Your task to perform on an android device: Add "lenovo thinkpad" to the cart on ebay, then select checkout. Image 0: 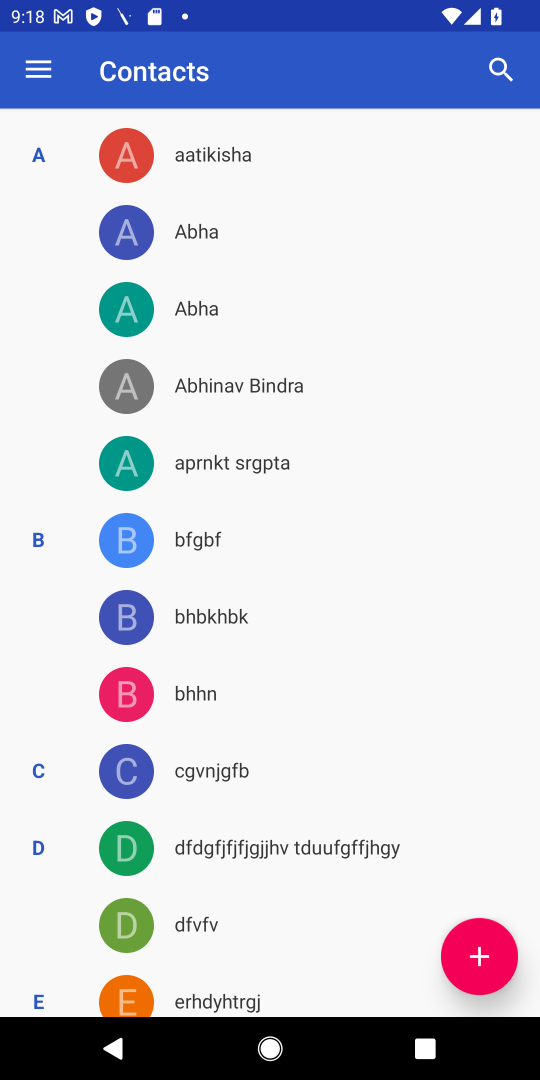
Step 0: press home button
Your task to perform on an android device: Add "lenovo thinkpad" to the cart on ebay, then select checkout. Image 1: 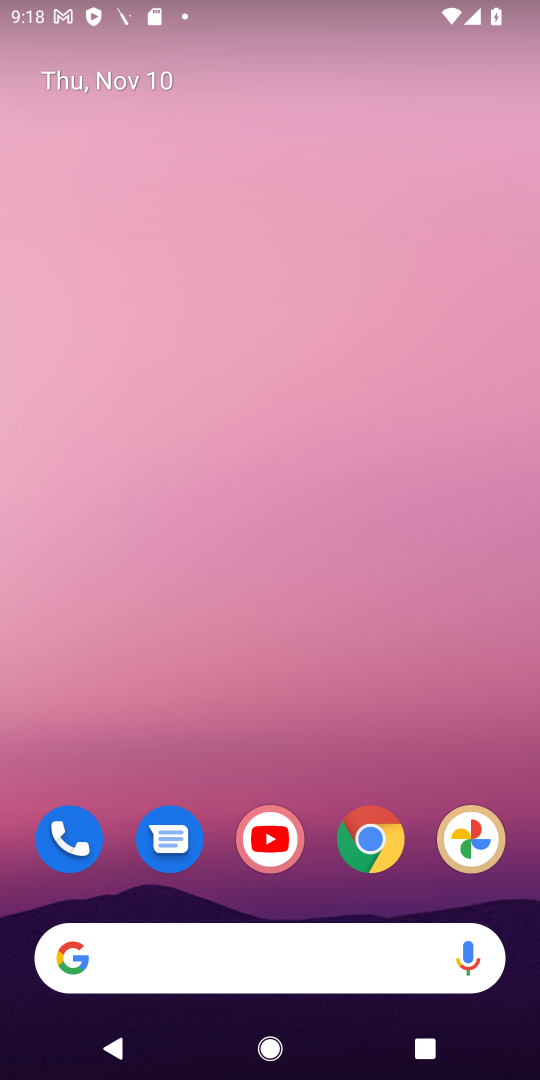
Step 1: click (372, 839)
Your task to perform on an android device: Add "lenovo thinkpad" to the cart on ebay, then select checkout. Image 2: 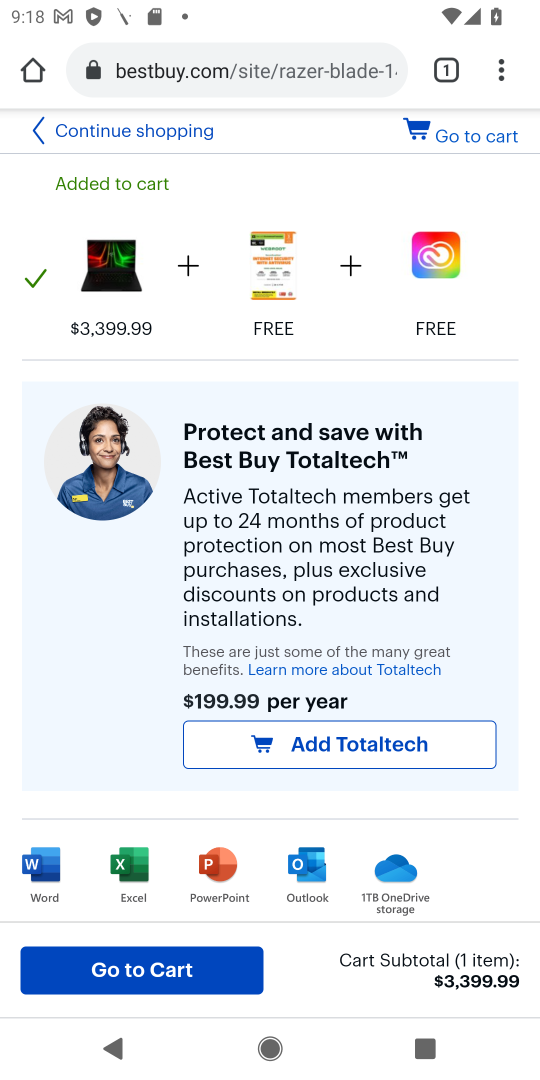
Step 2: click (286, 56)
Your task to perform on an android device: Add "lenovo thinkpad" to the cart on ebay, then select checkout. Image 3: 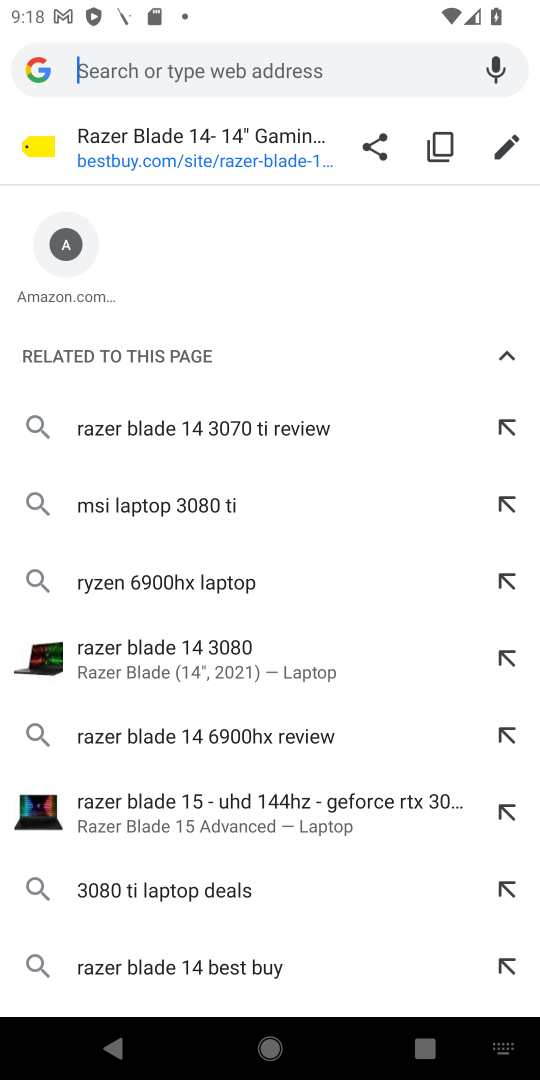
Step 3: type "ebay"
Your task to perform on an android device: Add "lenovo thinkpad" to the cart on ebay, then select checkout. Image 4: 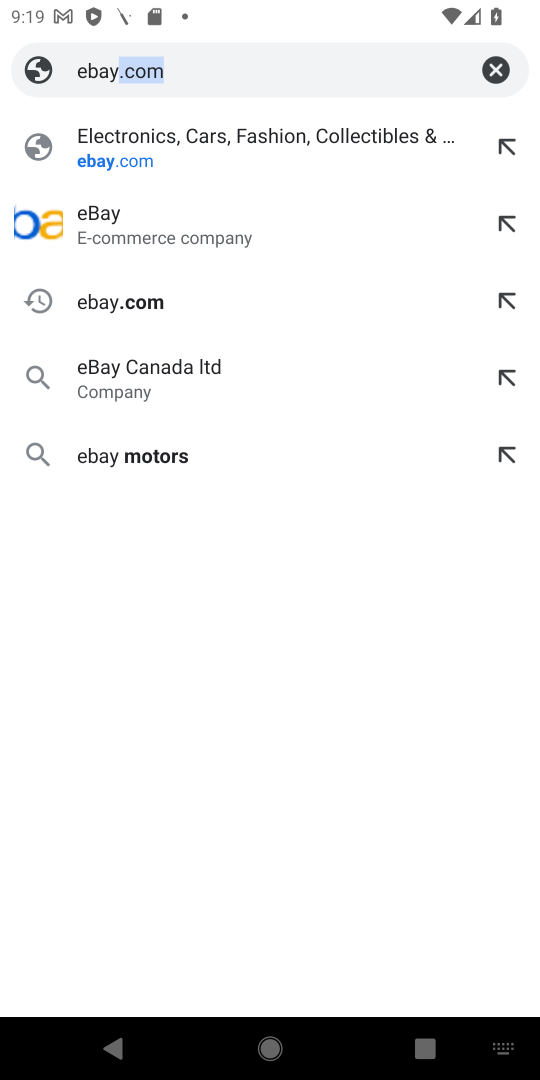
Step 4: click (310, 70)
Your task to perform on an android device: Add "lenovo thinkpad" to the cart on ebay, then select checkout. Image 5: 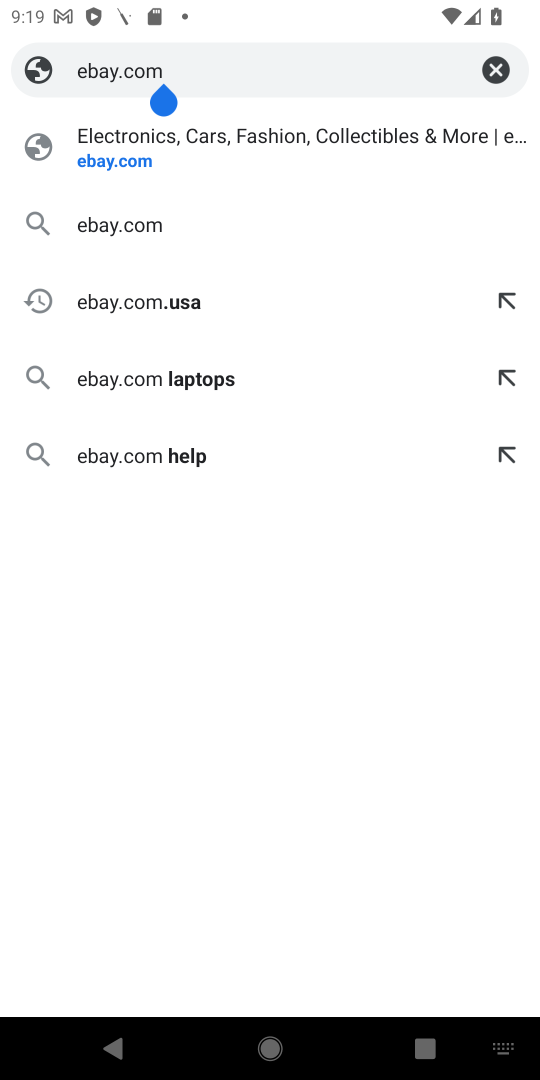
Step 5: click (145, 234)
Your task to perform on an android device: Add "lenovo thinkpad" to the cart on ebay, then select checkout. Image 6: 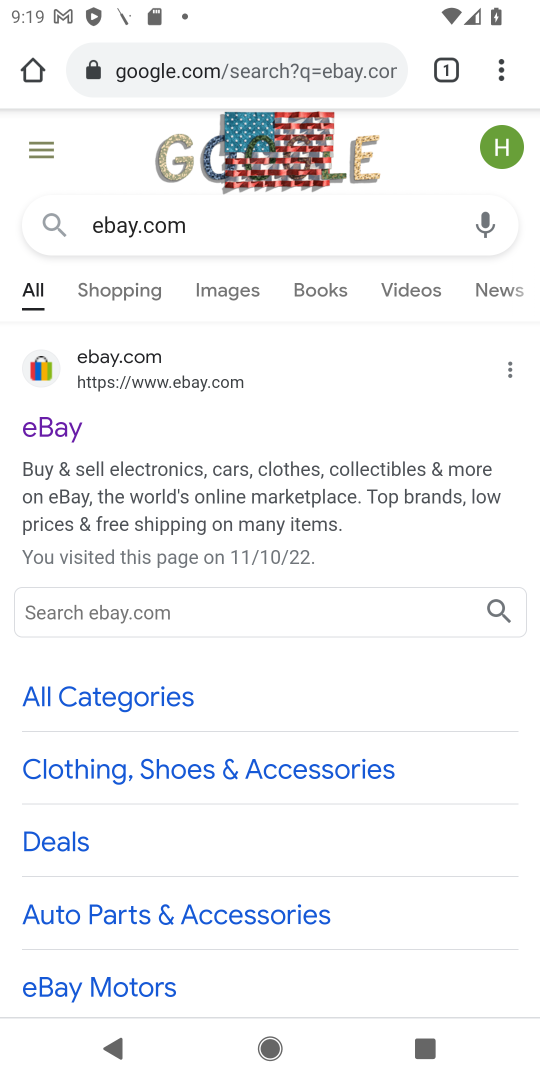
Step 6: click (172, 386)
Your task to perform on an android device: Add "lenovo thinkpad" to the cart on ebay, then select checkout. Image 7: 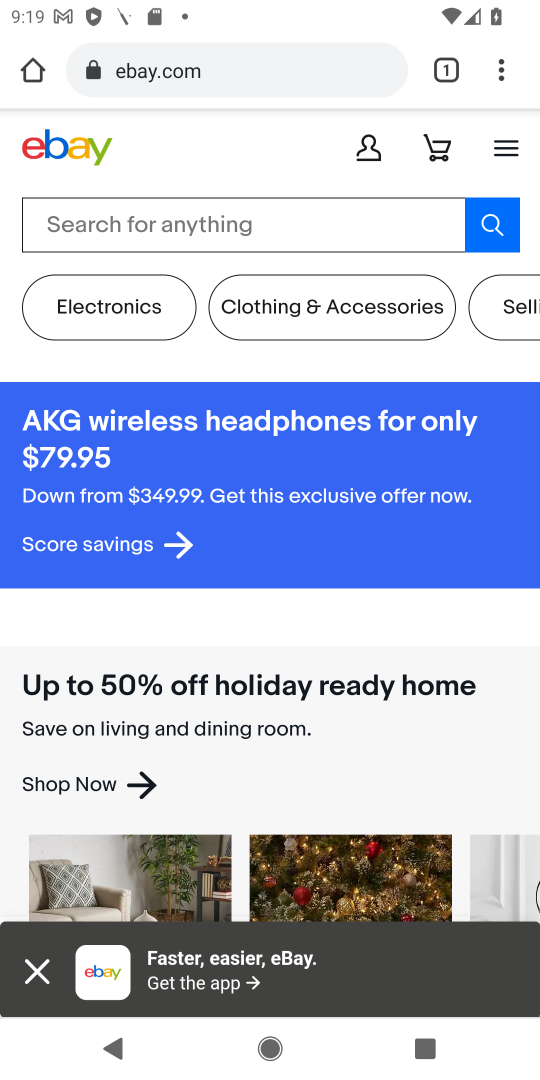
Step 7: click (175, 222)
Your task to perform on an android device: Add "lenovo thinkpad" to the cart on ebay, then select checkout. Image 8: 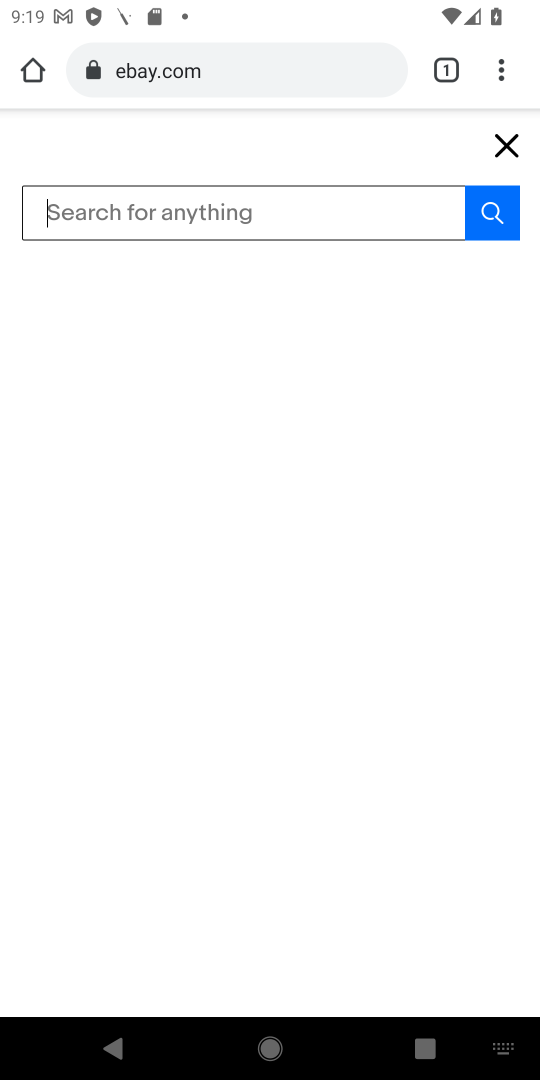
Step 8: type "lenovo thinkpad"
Your task to perform on an android device: Add "lenovo thinkpad" to the cart on ebay, then select checkout. Image 9: 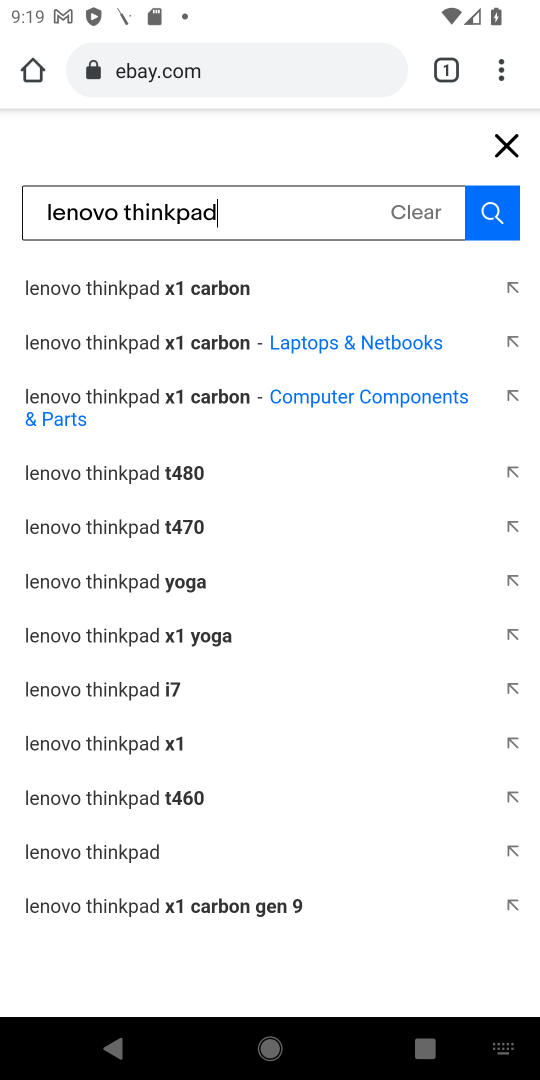
Step 9: click (125, 852)
Your task to perform on an android device: Add "lenovo thinkpad" to the cart on ebay, then select checkout. Image 10: 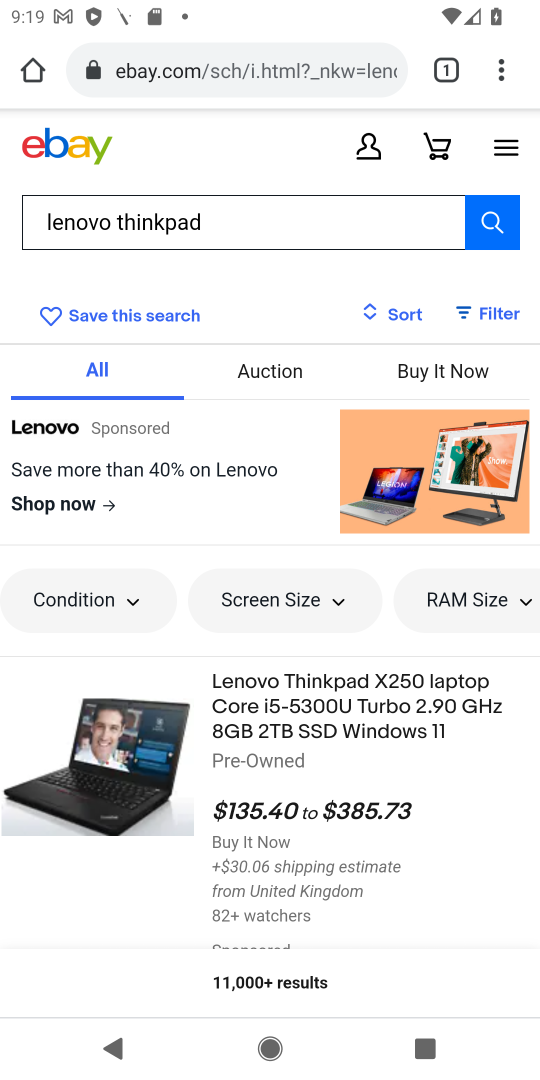
Step 10: click (125, 758)
Your task to perform on an android device: Add "lenovo thinkpad" to the cart on ebay, then select checkout. Image 11: 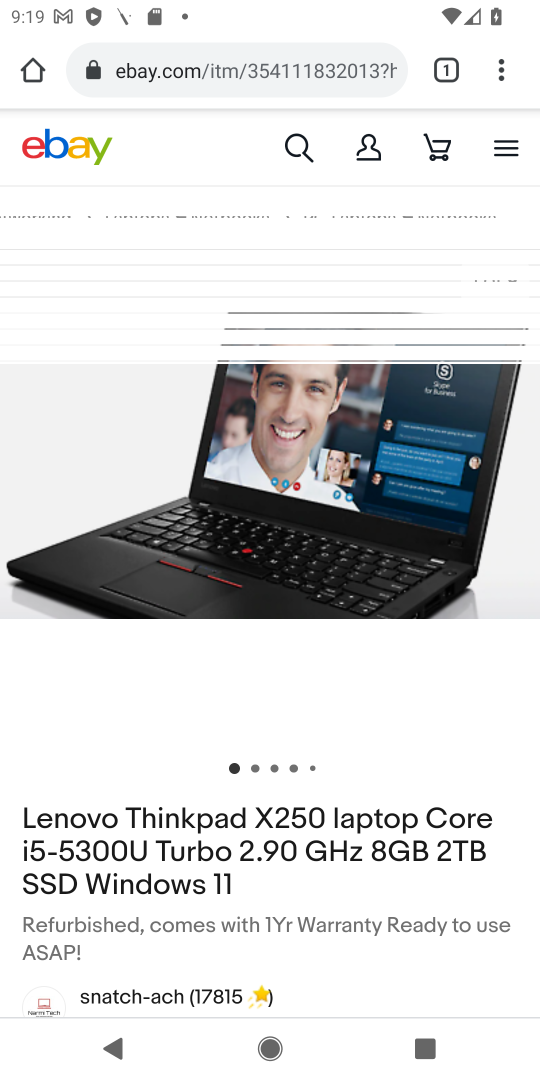
Step 11: drag from (445, 860) to (381, 196)
Your task to perform on an android device: Add "lenovo thinkpad" to the cart on ebay, then select checkout. Image 12: 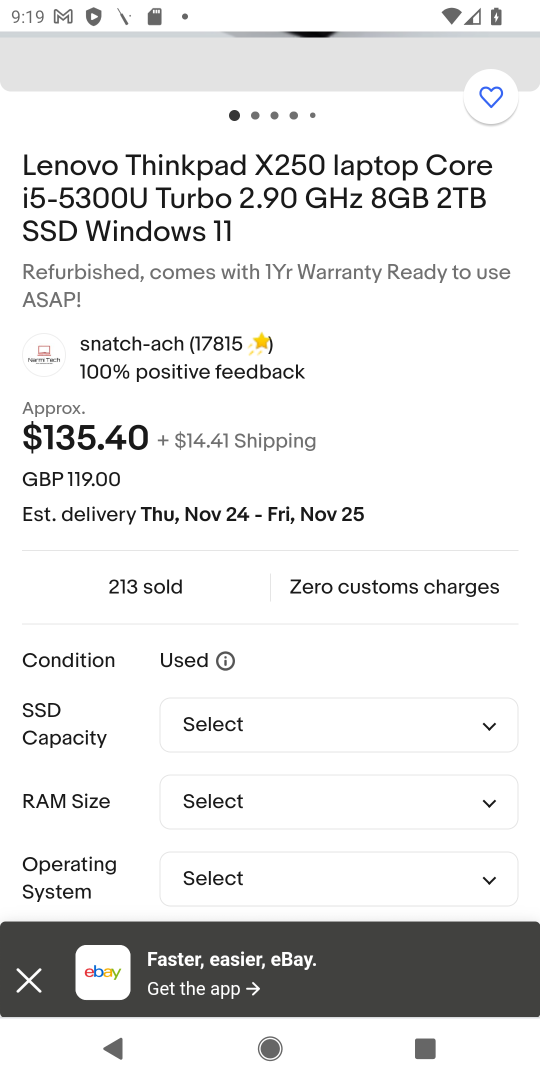
Step 12: drag from (424, 779) to (416, 232)
Your task to perform on an android device: Add "lenovo thinkpad" to the cart on ebay, then select checkout. Image 13: 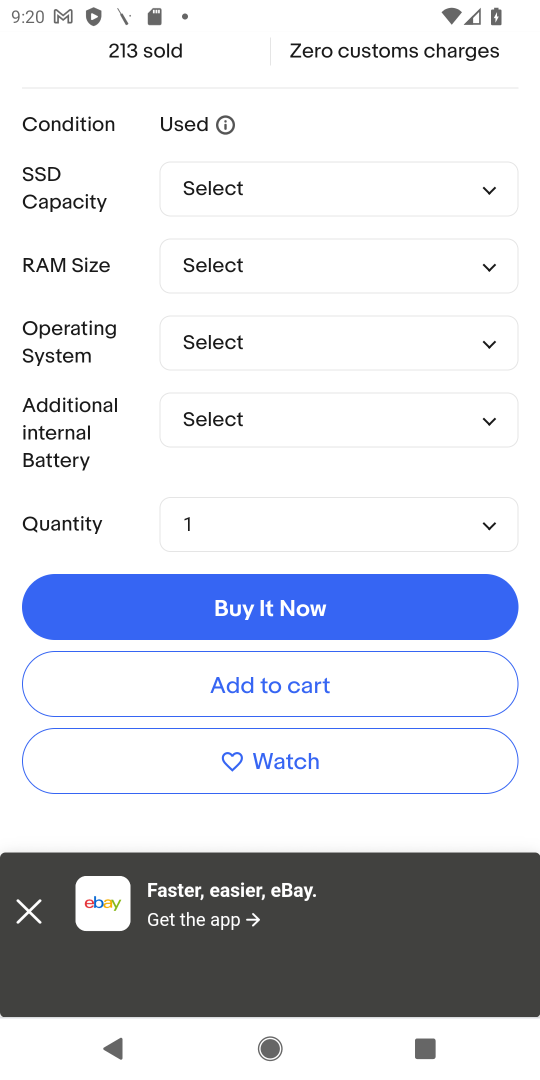
Step 13: click (296, 692)
Your task to perform on an android device: Add "lenovo thinkpad" to the cart on ebay, then select checkout. Image 14: 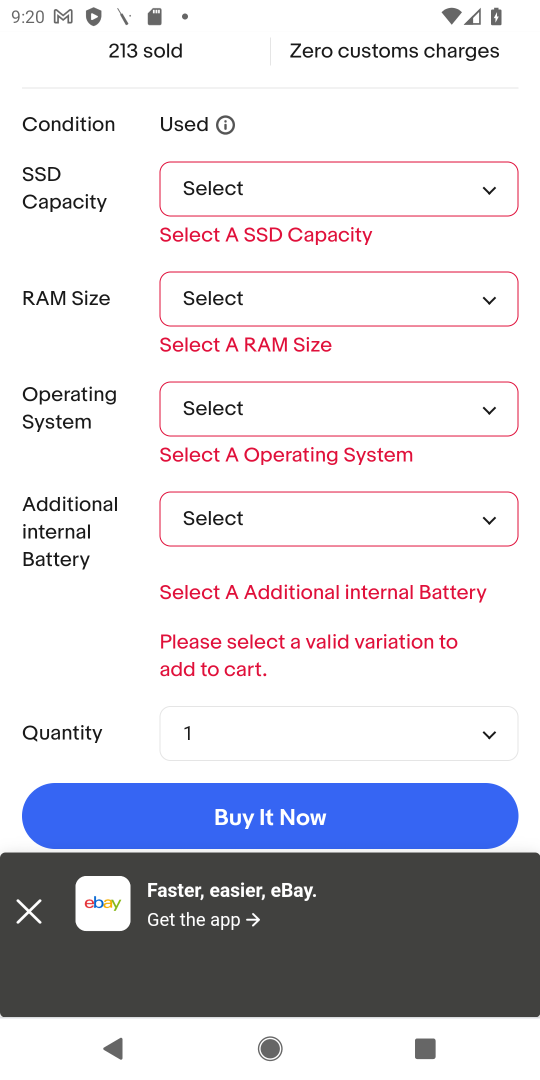
Step 14: press back button
Your task to perform on an android device: Add "lenovo thinkpad" to the cart on ebay, then select checkout. Image 15: 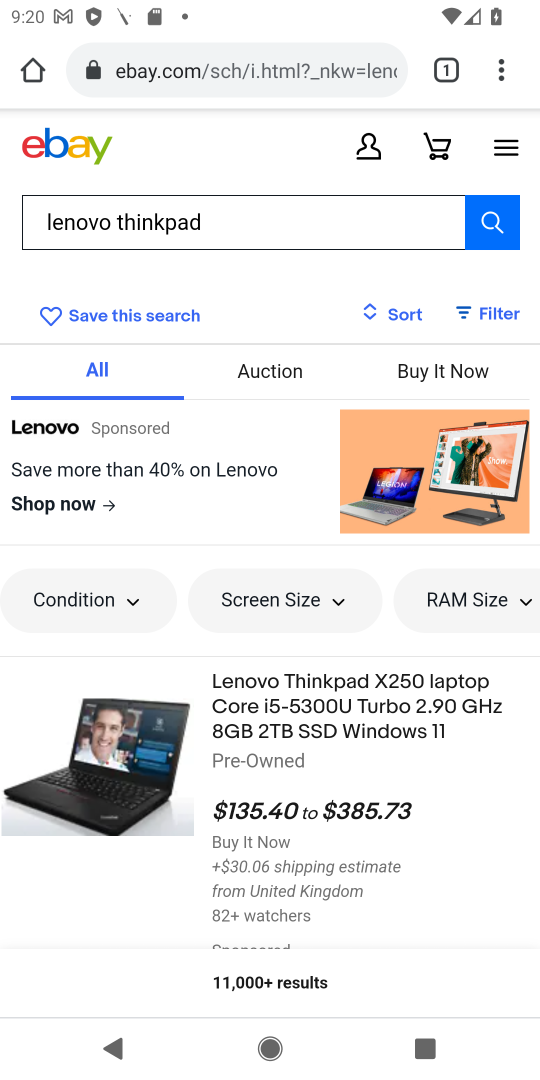
Step 15: drag from (435, 824) to (456, 328)
Your task to perform on an android device: Add "lenovo thinkpad" to the cart on ebay, then select checkout. Image 16: 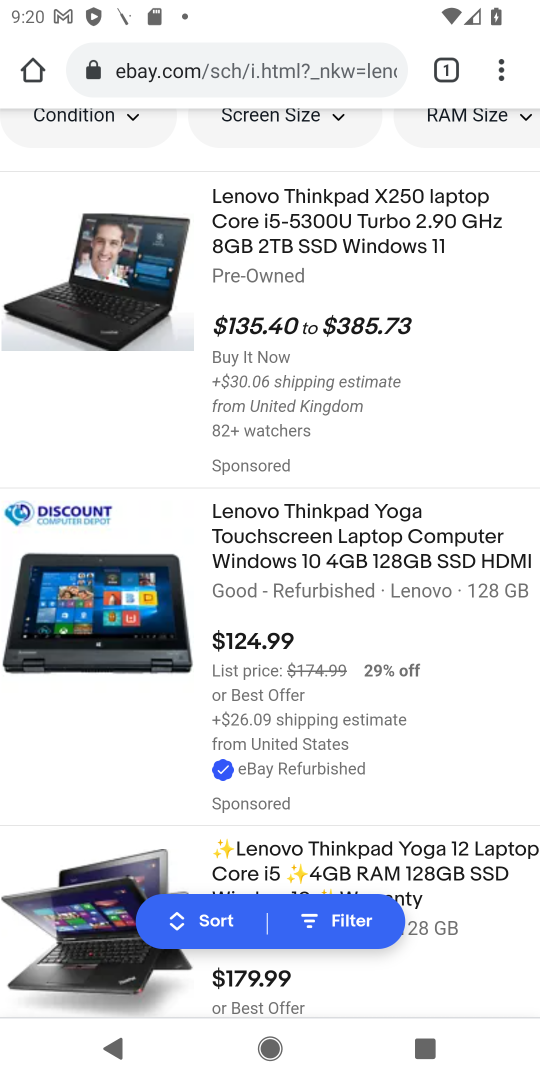
Step 16: click (72, 619)
Your task to perform on an android device: Add "lenovo thinkpad" to the cart on ebay, then select checkout. Image 17: 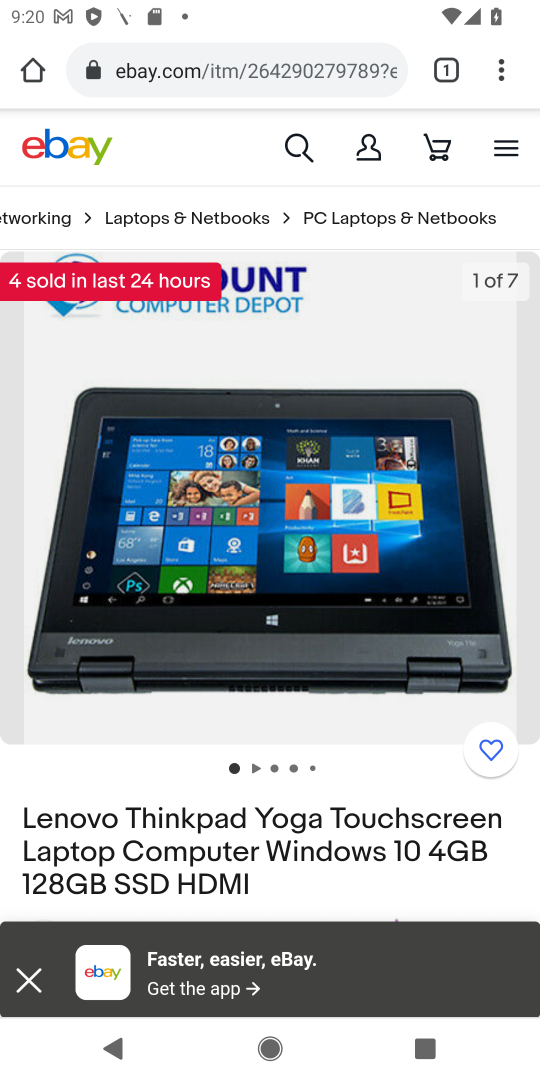
Step 17: drag from (393, 713) to (399, 414)
Your task to perform on an android device: Add "lenovo thinkpad" to the cart on ebay, then select checkout. Image 18: 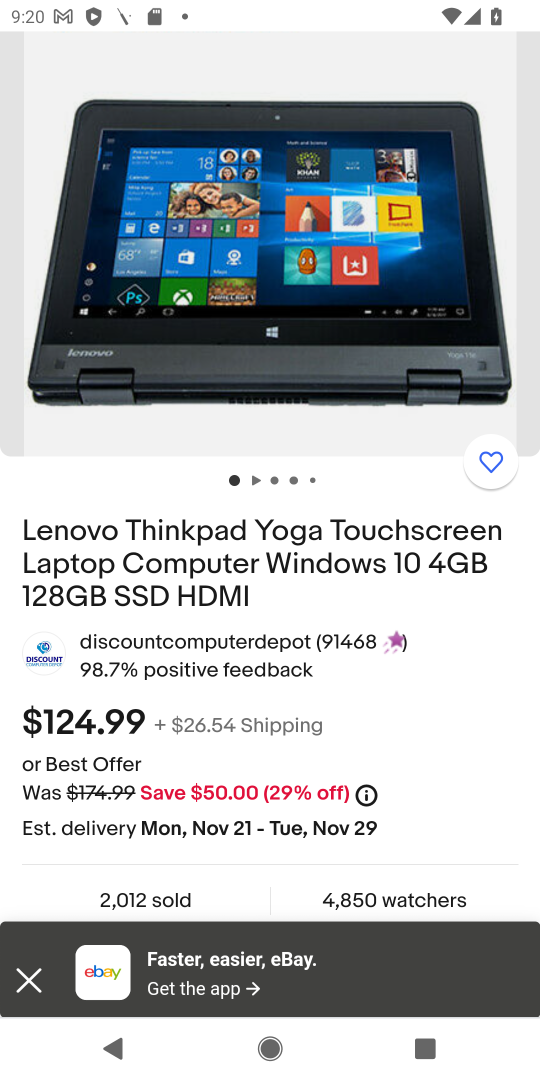
Step 18: drag from (471, 549) to (465, 285)
Your task to perform on an android device: Add "lenovo thinkpad" to the cart on ebay, then select checkout. Image 19: 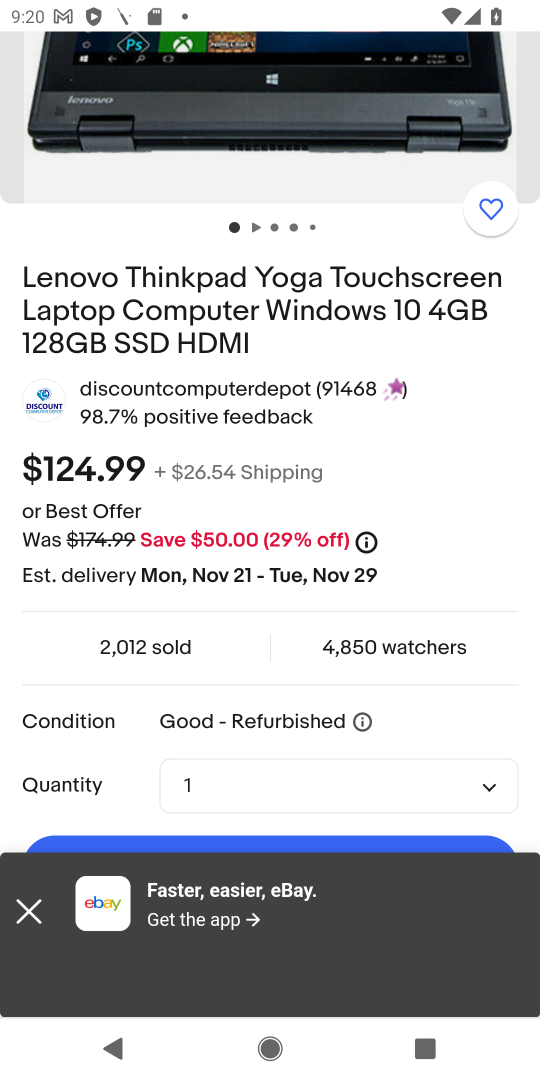
Step 19: drag from (468, 741) to (433, 283)
Your task to perform on an android device: Add "lenovo thinkpad" to the cart on ebay, then select checkout. Image 20: 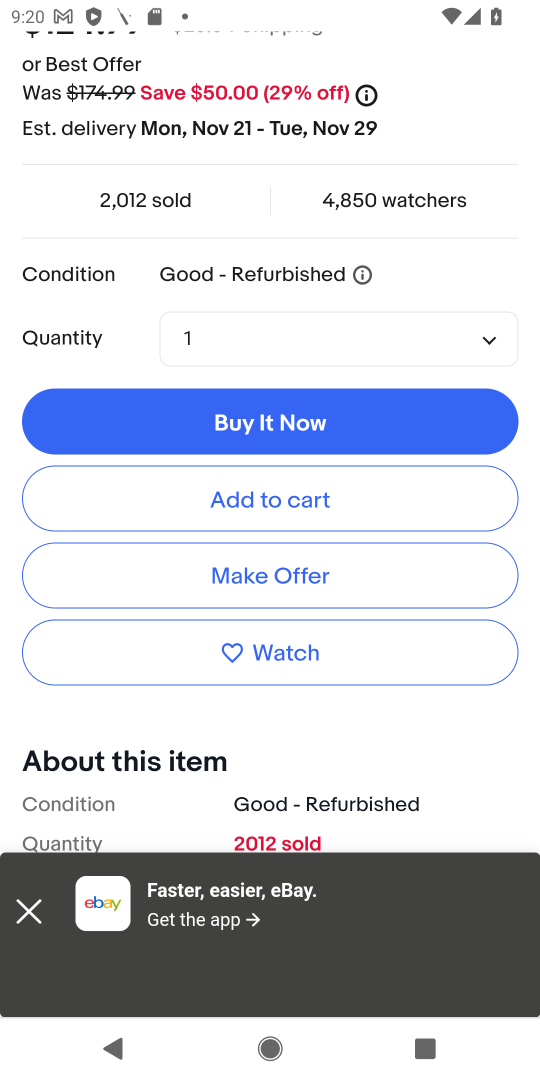
Step 20: click (341, 507)
Your task to perform on an android device: Add "lenovo thinkpad" to the cart on ebay, then select checkout. Image 21: 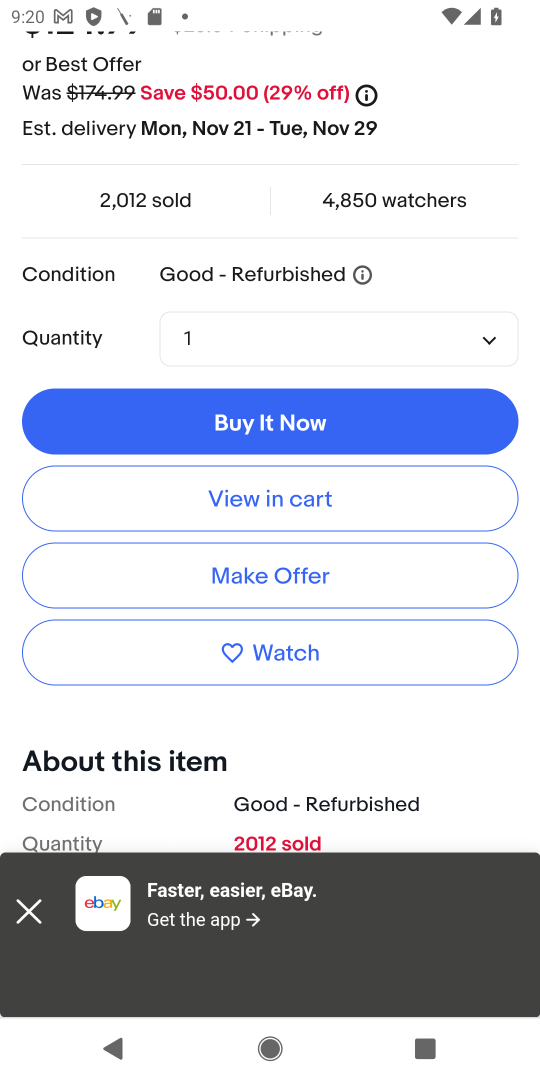
Step 21: click (320, 497)
Your task to perform on an android device: Add "lenovo thinkpad" to the cart on ebay, then select checkout. Image 22: 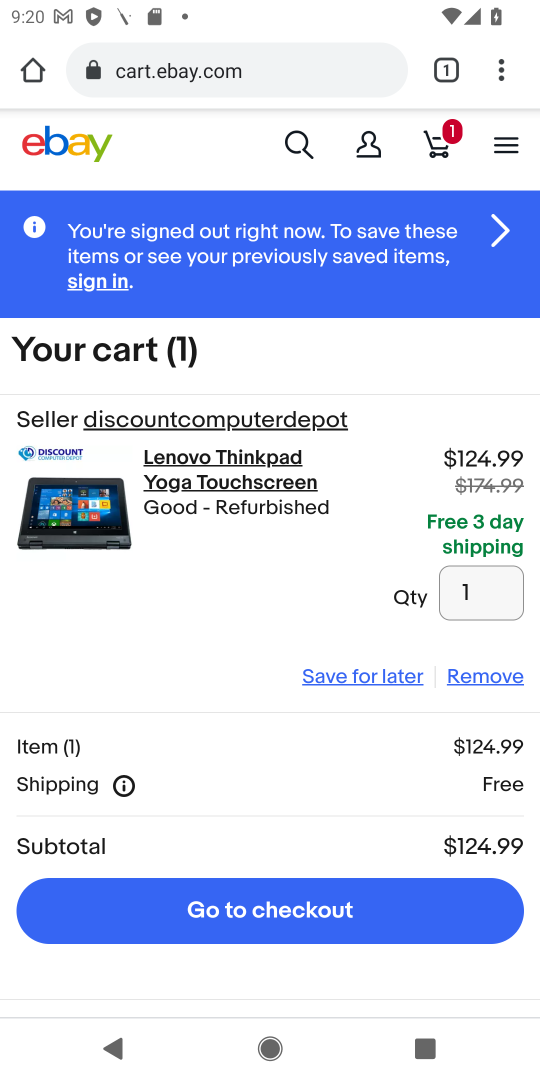
Step 22: click (258, 911)
Your task to perform on an android device: Add "lenovo thinkpad" to the cart on ebay, then select checkout. Image 23: 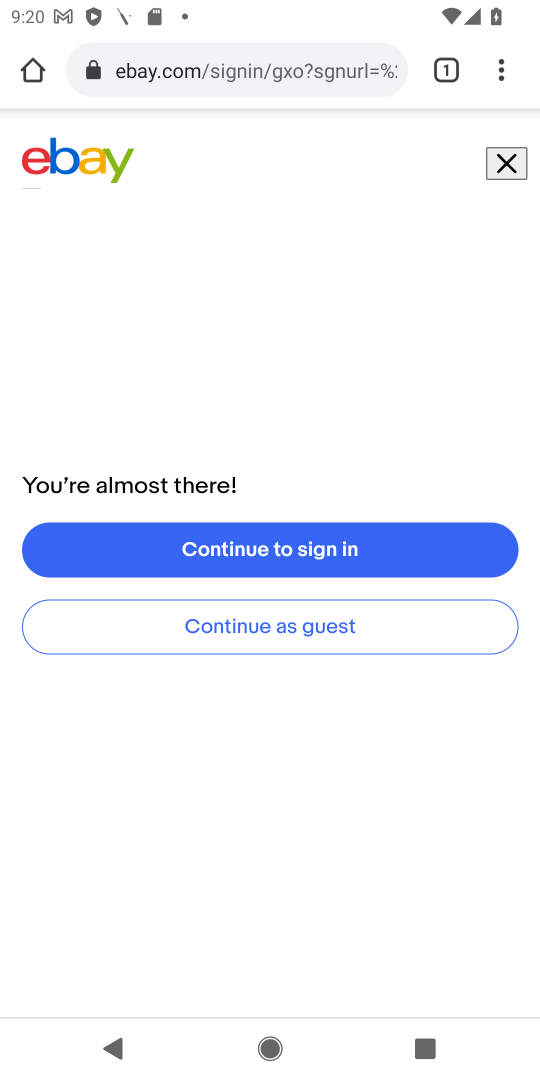
Step 23: task complete